Your task to perform on an android device: Go to wifi settings Image 0: 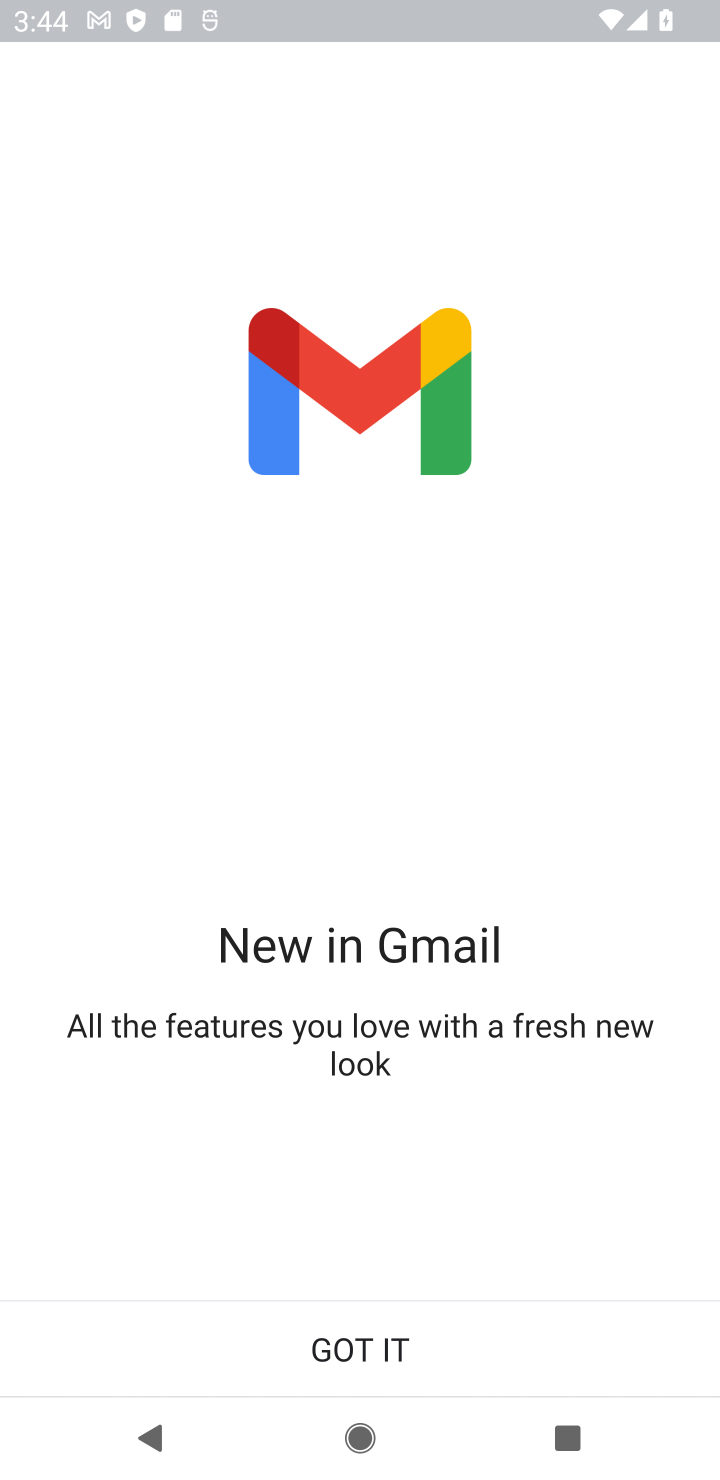
Step 0: press home button
Your task to perform on an android device: Go to wifi settings Image 1: 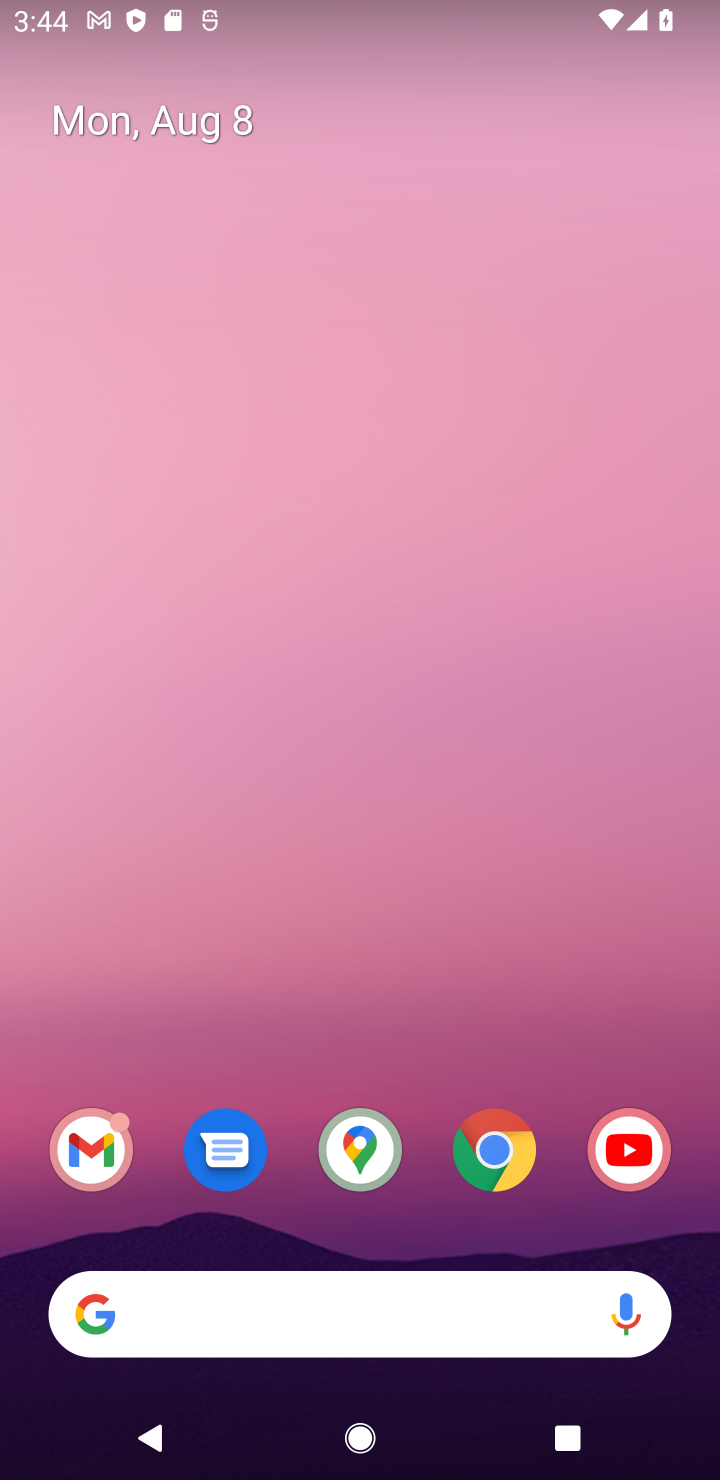
Step 1: drag from (261, 1250) to (250, 39)
Your task to perform on an android device: Go to wifi settings Image 2: 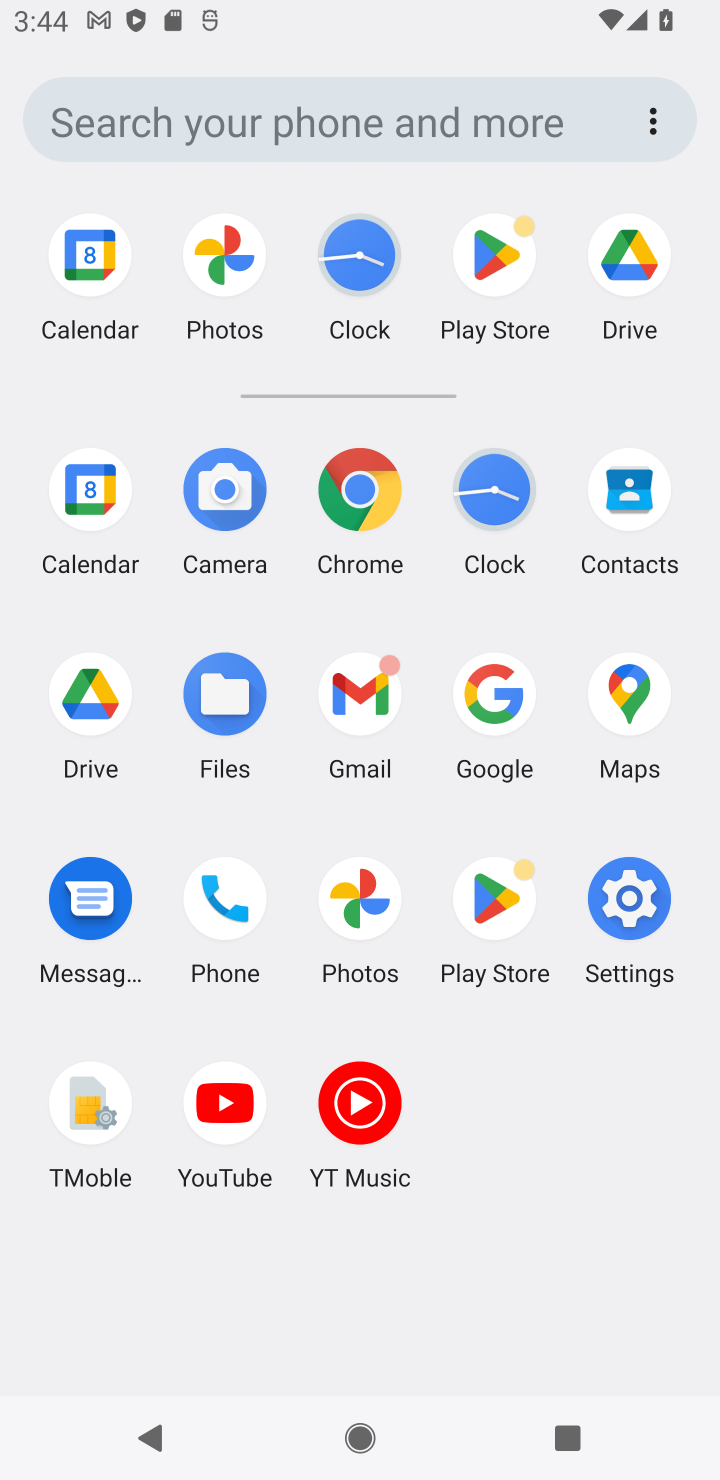
Step 2: click (625, 875)
Your task to perform on an android device: Go to wifi settings Image 3: 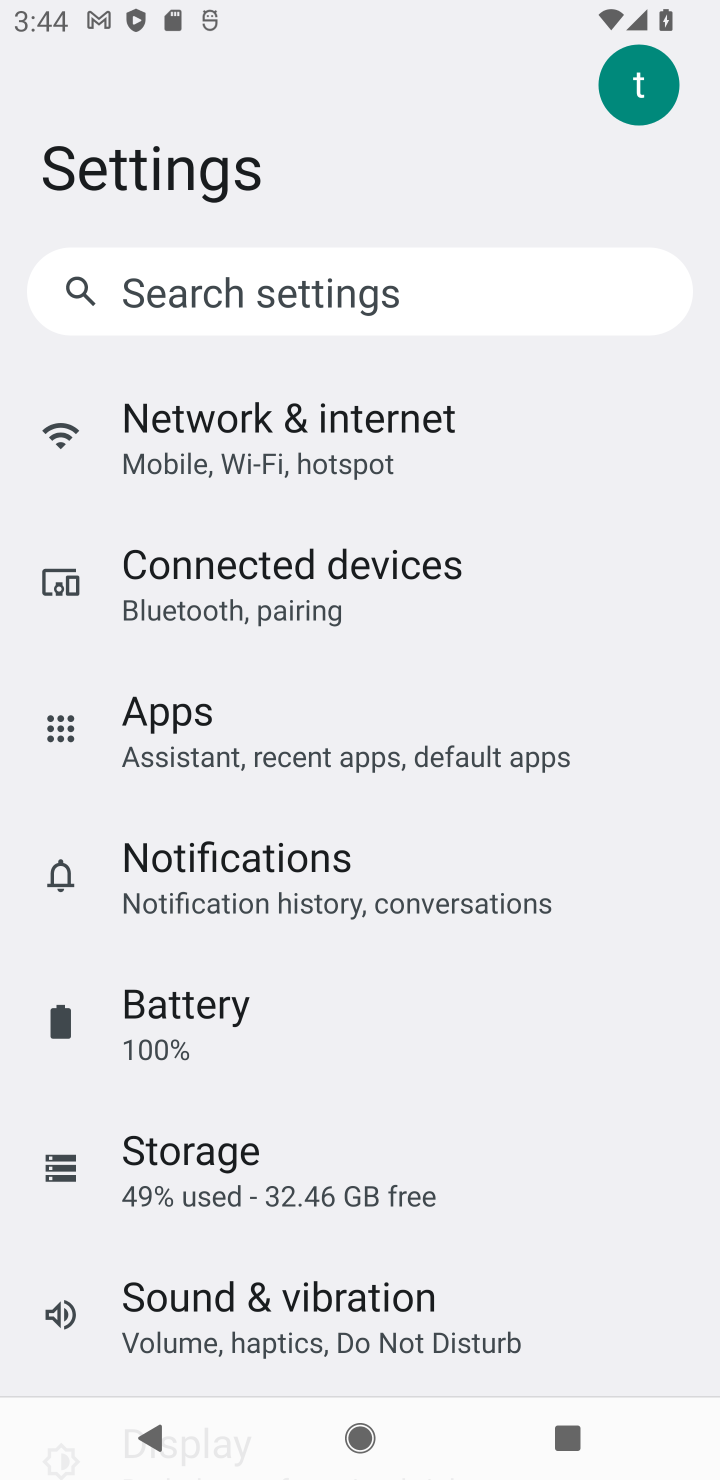
Step 3: click (355, 478)
Your task to perform on an android device: Go to wifi settings Image 4: 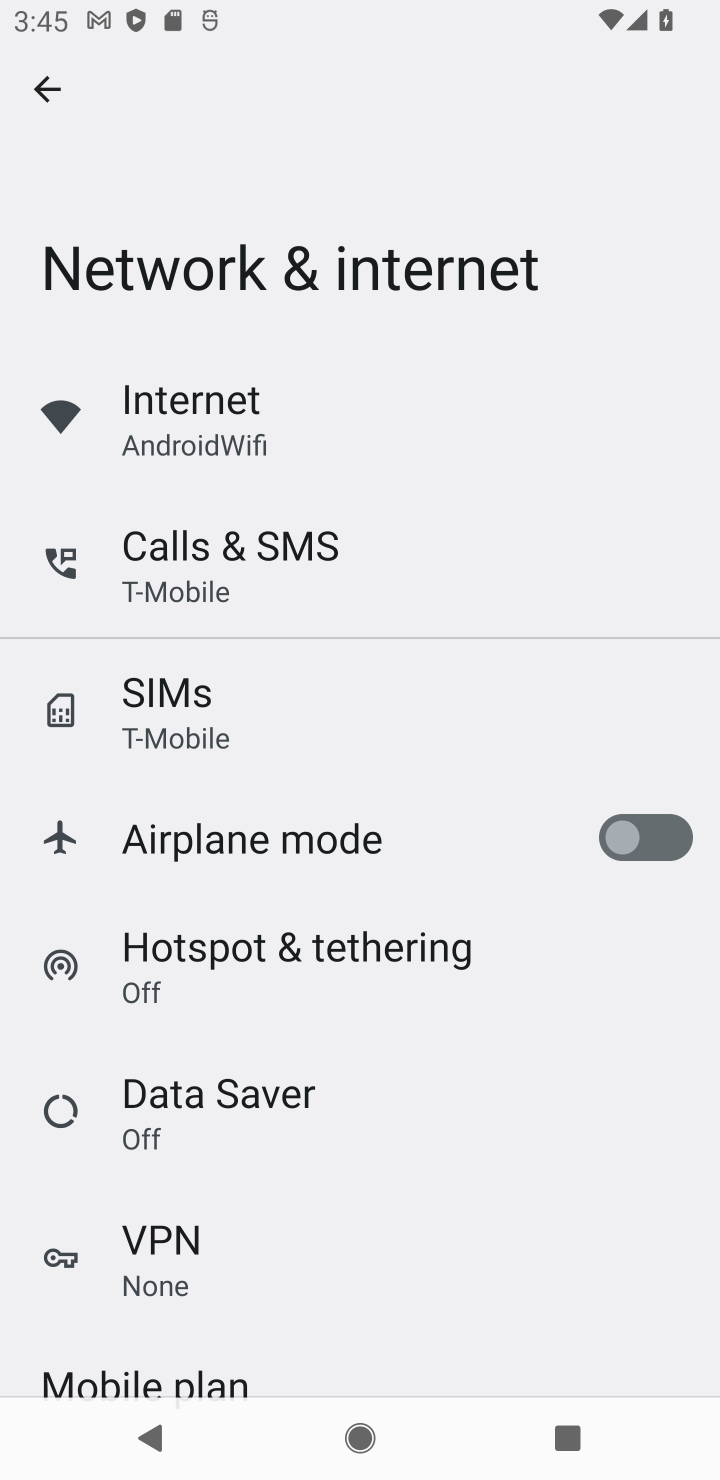
Step 4: click (387, 395)
Your task to perform on an android device: Go to wifi settings Image 5: 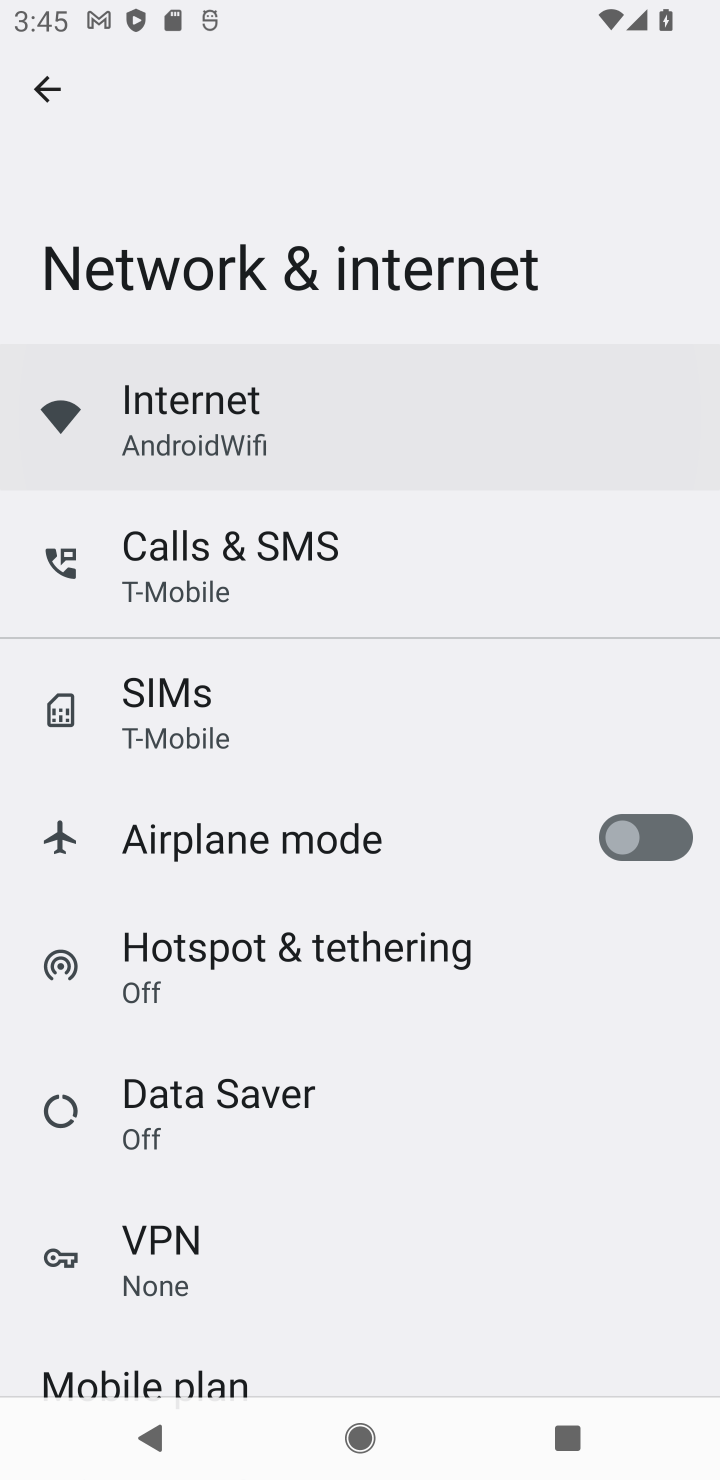
Step 5: task complete